Your task to perform on an android device: turn on showing notifications on the lock screen Image 0: 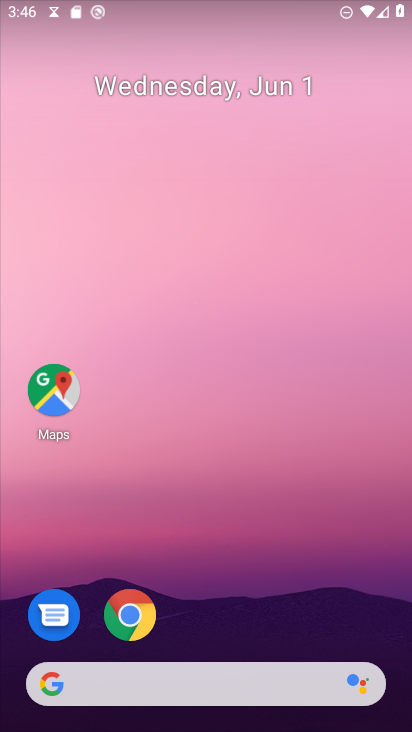
Step 0: press home button
Your task to perform on an android device: turn on showing notifications on the lock screen Image 1: 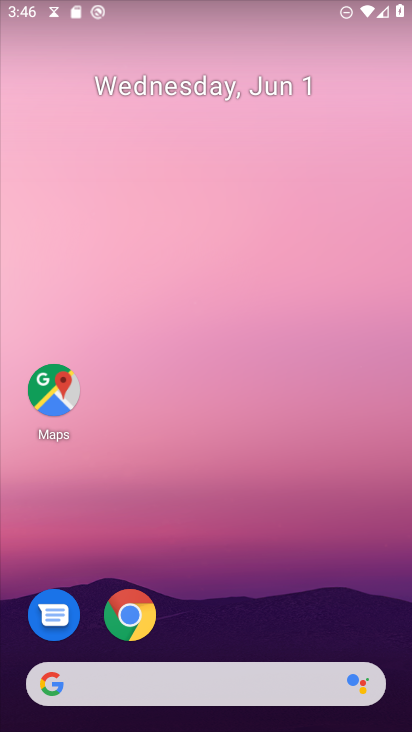
Step 1: drag from (221, 644) to (264, 60)
Your task to perform on an android device: turn on showing notifications on the lock screen Image 2: 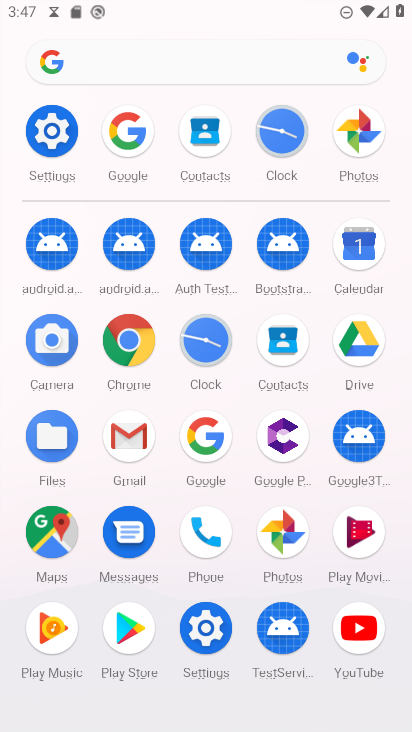
Step 2: click (201, 623)
Your task to perform on an android device: turn on showing notifications on the lock screen Image 3: 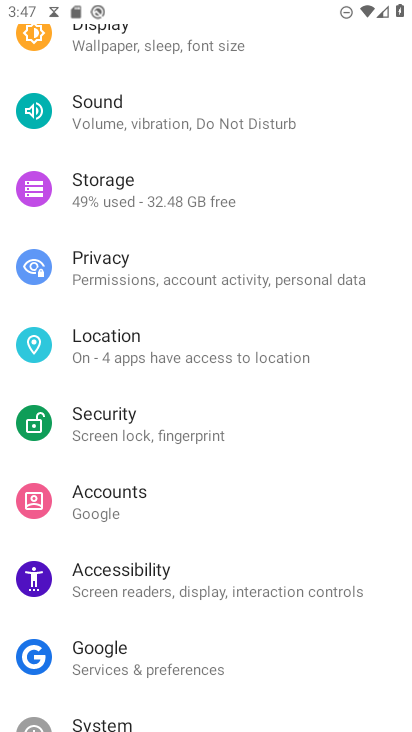
Step 3: drag from (150, 86) to (152, 726)
Your task to perform on an android device: turn on showing notifications on the lock screen Image 4: 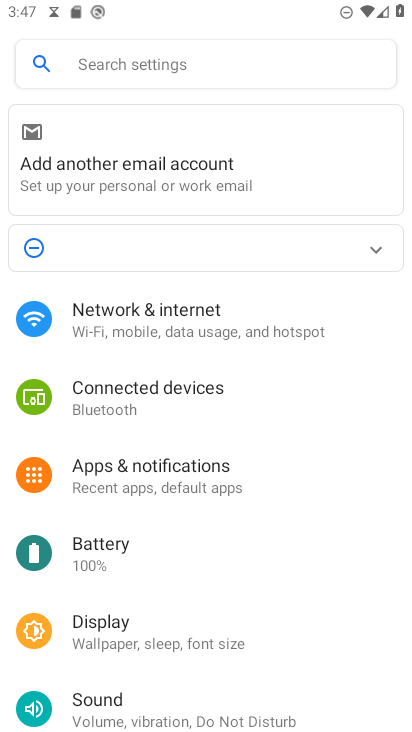
Step 4: click (247, 475)
Your task to perform on an android device: turn on showing notifications on the lock screen Image 5: 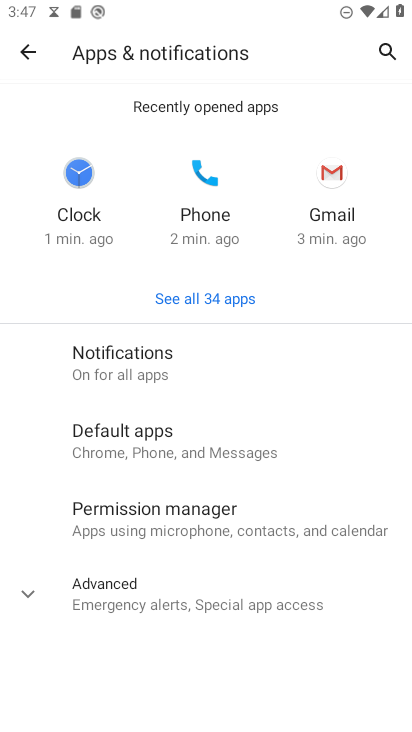
Step 5: click (185, 358)
Your task to perform on an android device: turn on showing notifications on the lock screen Image 6: 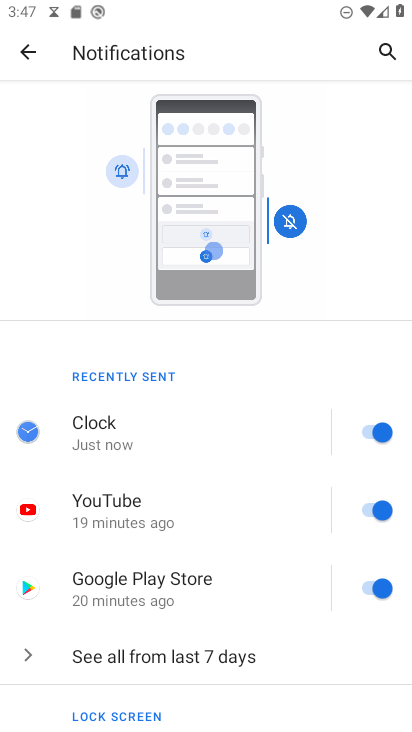
Step 6: drag from (281, 657) to (322, 162)
Your task to perform on an android device: turn on showing notifications on the lock screen Image 7: 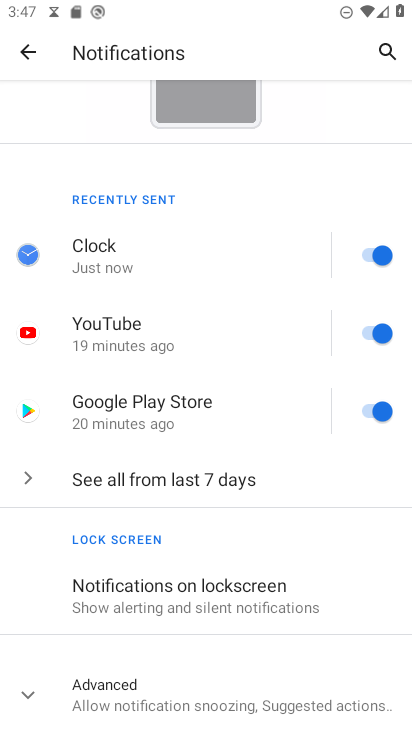
Step 7: click (222, 610)
Your task to perform on an android device: turn on showing notifications on the lock screen Image 8: 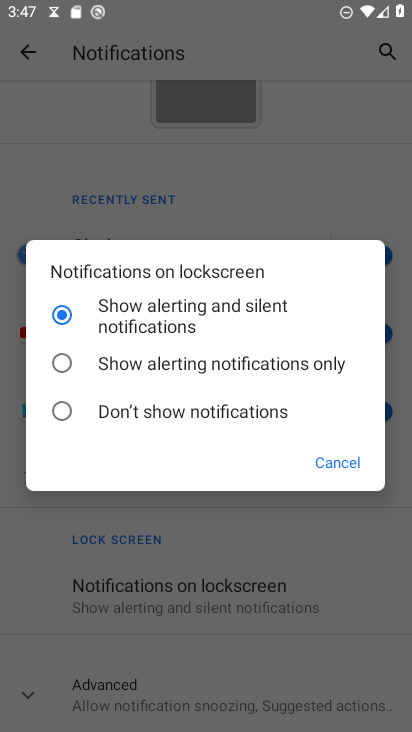
Step 8: click (60, 361)
Your task to perform on an android device: turn on showing notifications on the lock screen Image 9: 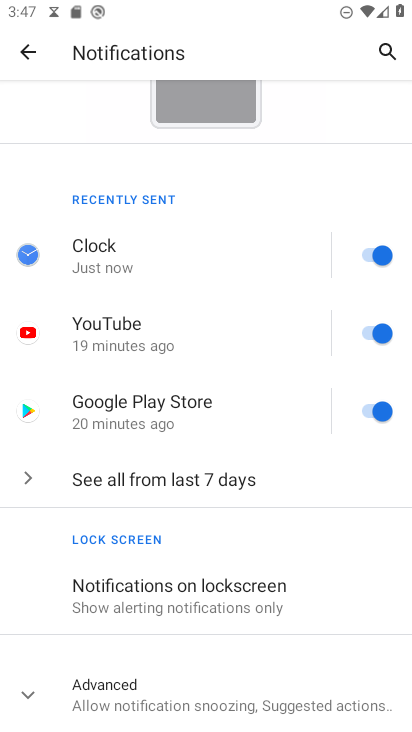
Step 9: task complete